Your task to perform on an android device: set default search engine in the chrome app Image 0: 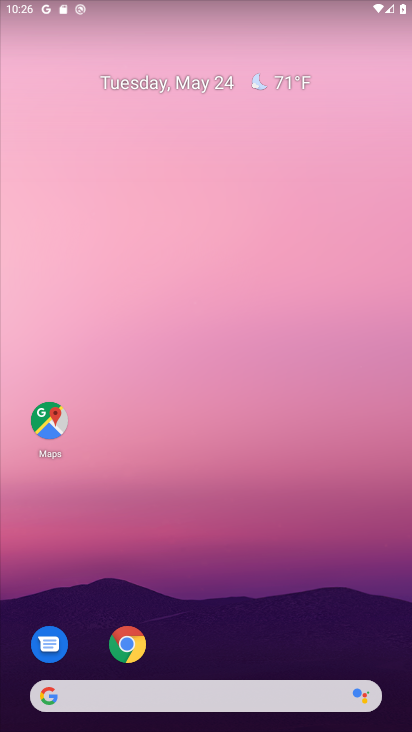
Step 0: click (128, 649)
Your task to perform on an android device: set default search engine in the chrome app Image 1: 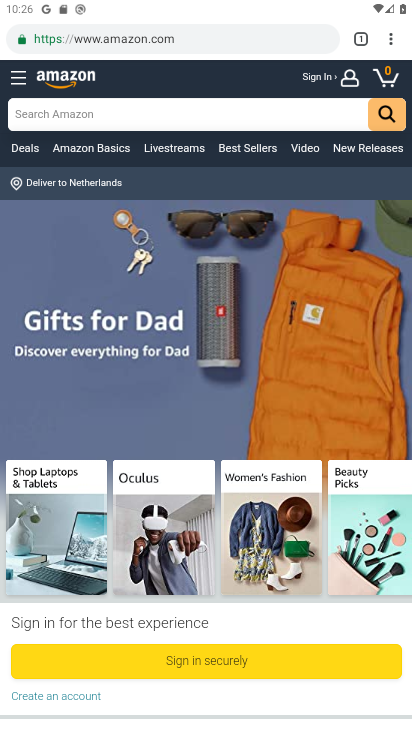
Step 1: click (392, 38)
Your task to perform on an android device: set default search engine in the chrome app Image 2: 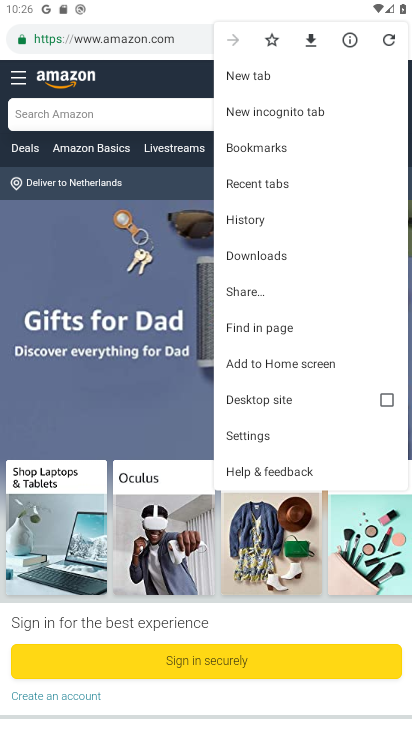
Step 2: click (252, 431)
Your task to perform on an android device: set default search engine in the chrome app Image 3: 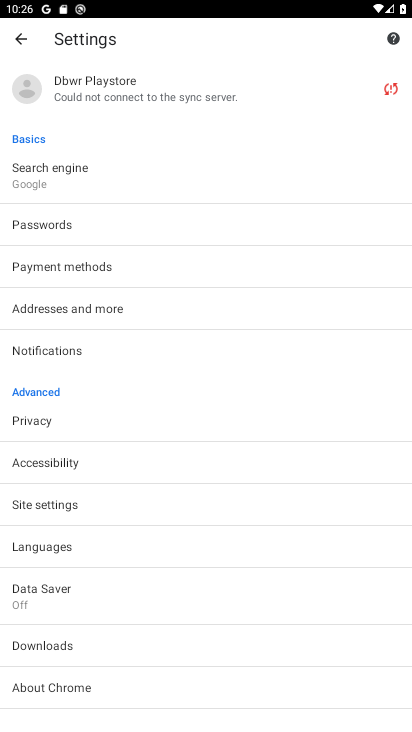
Step 3: click (60, 163)
Your task to perform on an android device: set default search engine in the chrome app Image 4: 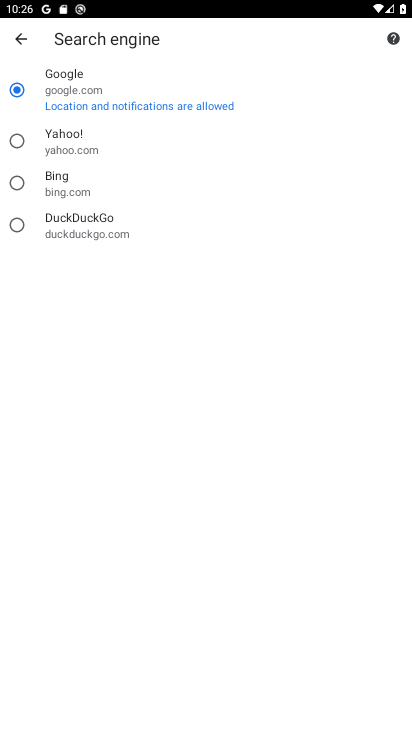
Step 4: click (24, 136)
Your task to perform on an android device: set default search engine in the chrome app Image 5: 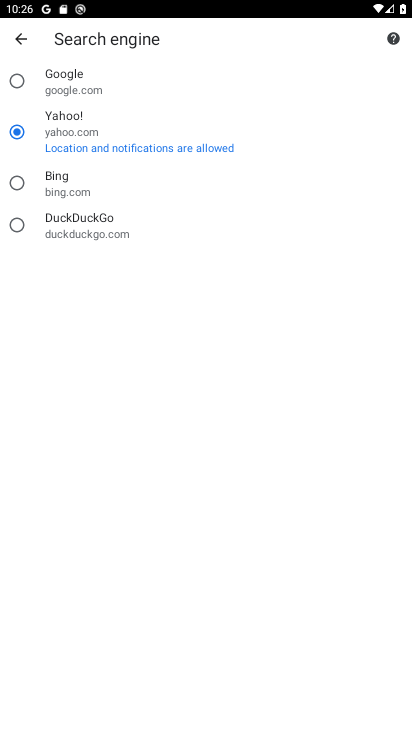
Step 5: task complete